Your task to perform on an android device: What is the recent news? Image 0: 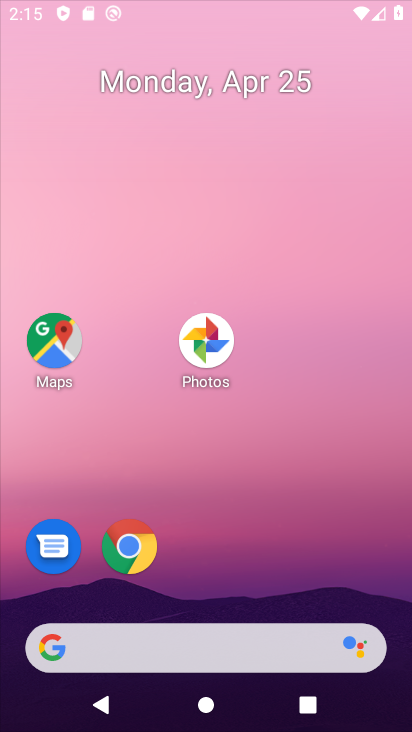
Step 0: drag from (261, 510) to (276, 268)
Your task to perform on an android device: What is the recent news? Image 1: 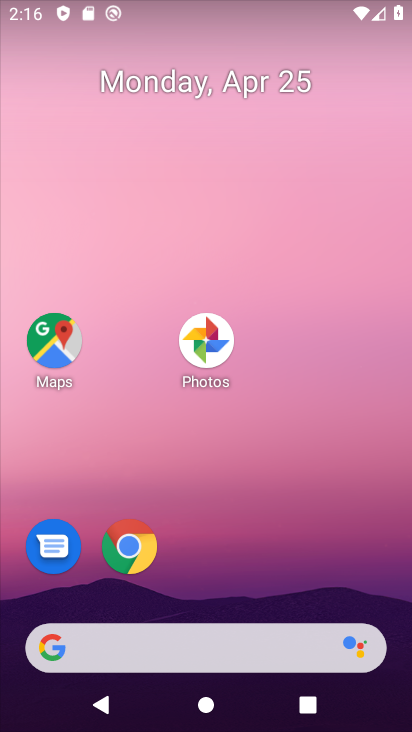
Step 1: drag from (246, 556) to (249, 208)
Your task to perform on an android device: What is the recent news? Image 2: 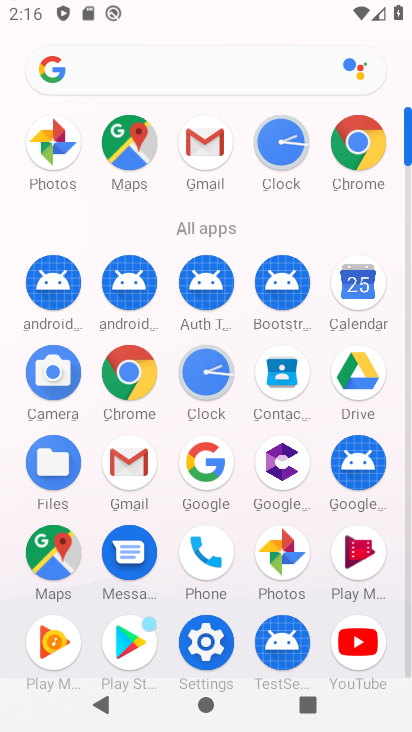
Step 2: click (123, 363)
Your task to perform on an android device: What is the recent news? Image 3: 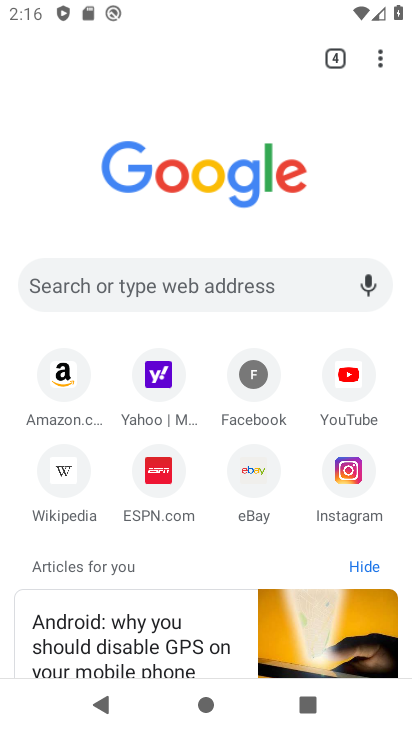
Step 3: click (189, 280)
Your task to perform on an android device: What is the recent news? Image 4: 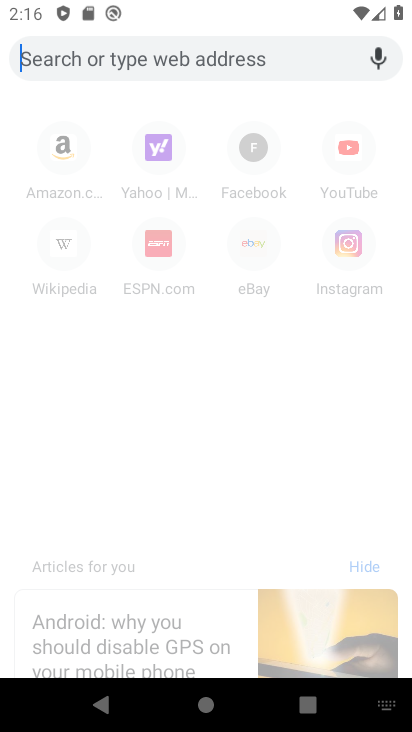
Step 4: type "What is the recent news"
Your task to perform on an android device: What is the recent news? Image 5: 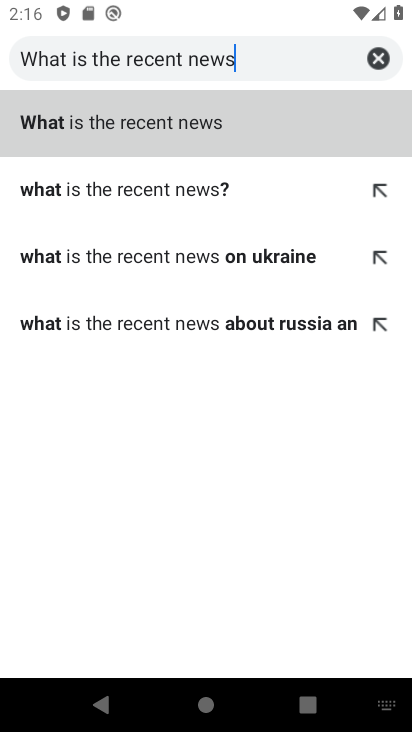
Step 5: click (208, 120)
Your task to perform on an android device: What is the recent news? Image 6: 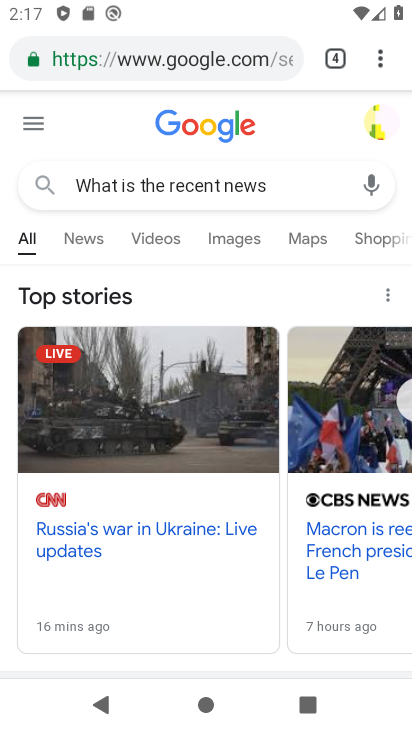
Step 6: task complete